Your task to perform on an android device: turn off notifications in google photos Image 0: 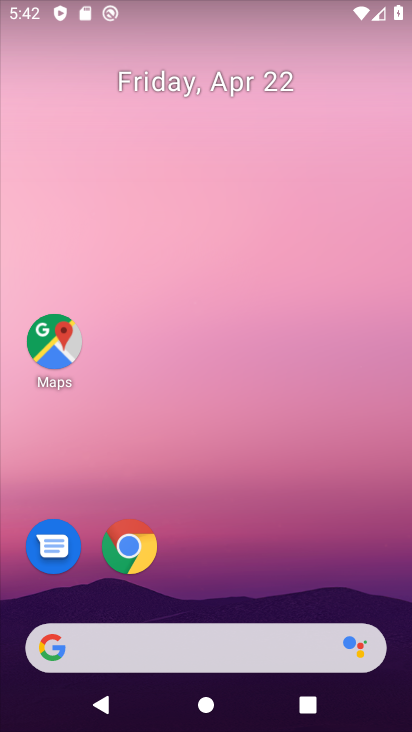
Step 0: drag from (311, 542) to (232, 194)
Your task to perform on an android device: turn off notifications in google photos Image 1: 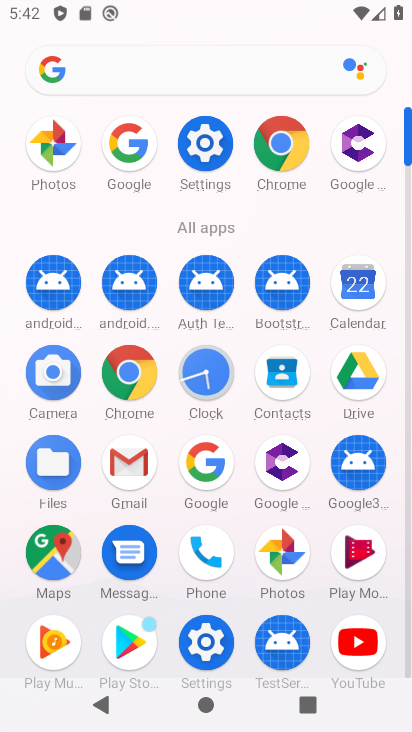
Step 1: drag from (316, 507) to (289, 231)
Your task to perform on an android device: turn off notifications in google photos Image 2: 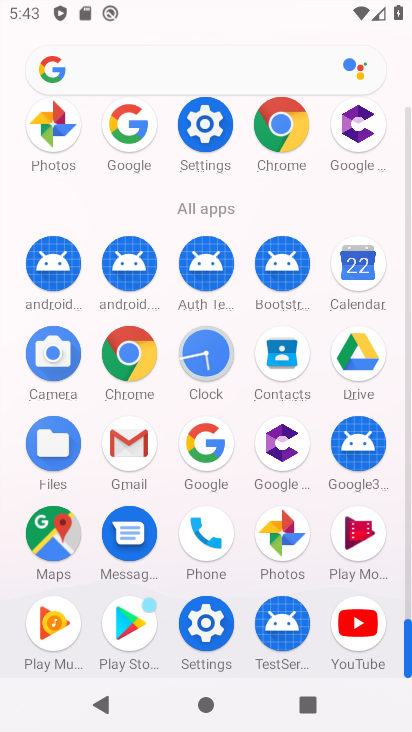
Step 2: click (275, 533)
Your task to perform on an android device: turn off notifications in google photos Image 3: 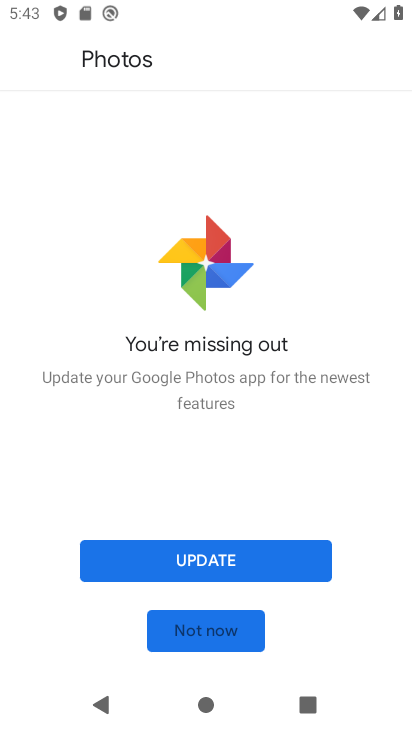
Step 3: click (205, 636)
Your task to perform on an android device: turn off notifications in google photos Image 4: 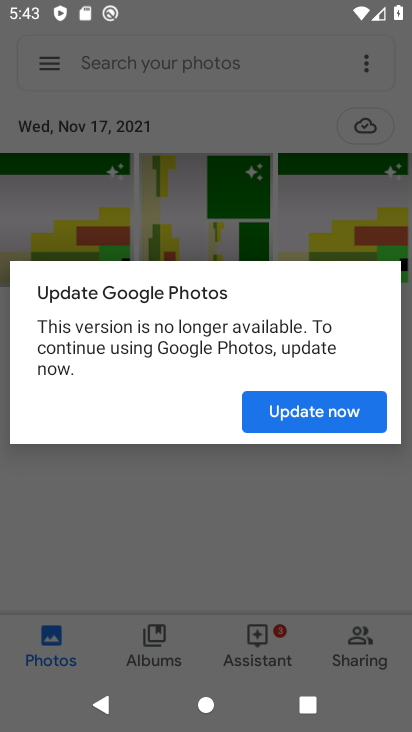
Step 4: click (294, 417)
Your task to perform on an android device: turn off notifications in google photos Image 5: 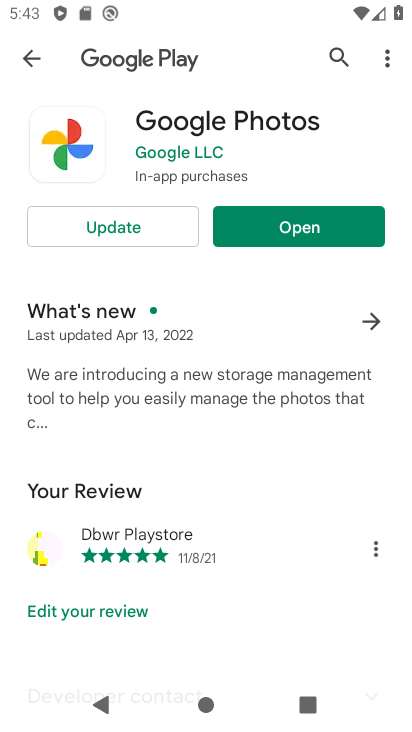
Step 5: click (309, 233)
Your task to perform on an android device: turn off notifications in google photos Image 6: 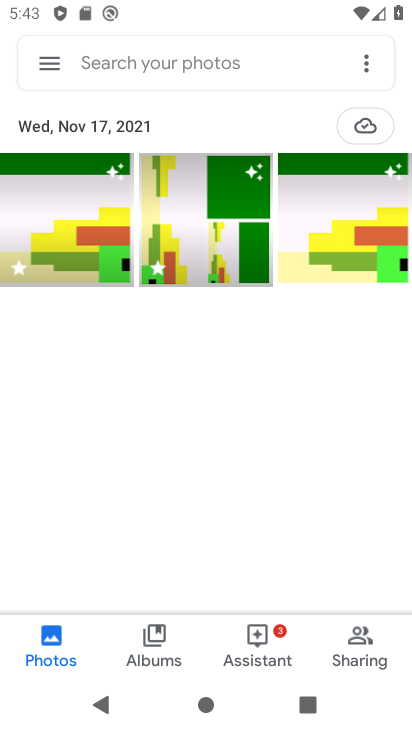
Step 6: click (61, 60)
Your task to perform on an android device: turn off notifications in google photos Image 7: 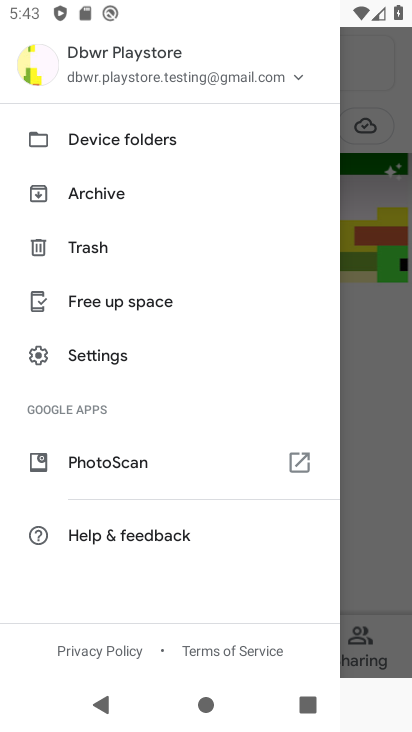
Step 7: click (104, 354)
Your task to perform on an android device: turn off notifications in google photos Image 8: 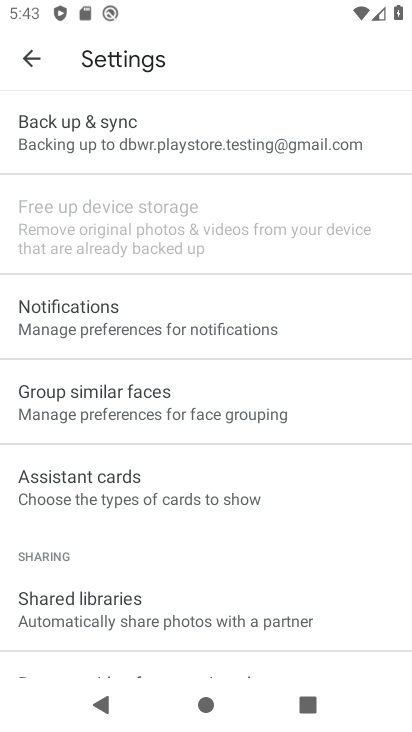
Step 8: click (84, 323)
Your task to perform on an android device: turn off notifications in google photos Image 9: 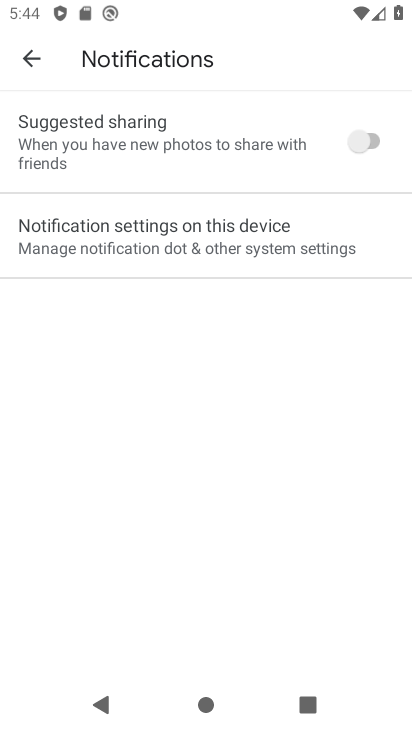
Step 9: task complete